Your task to perform on an android device: refresh tabs in the chrome app Image 0: 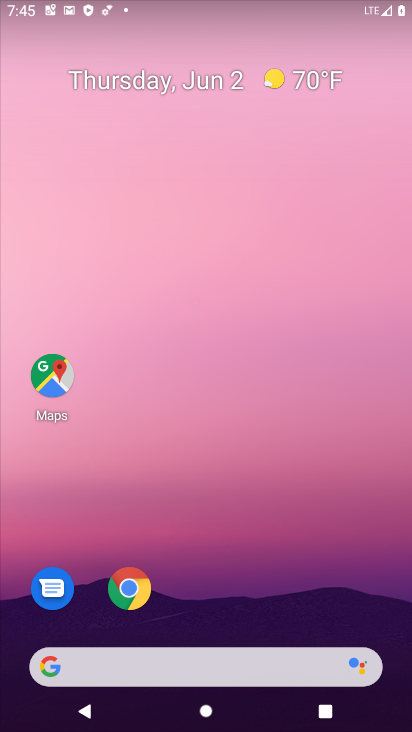
Step 0: click (140, 587)
Your task to perform on an android device: refresh tabs in the chrome app Image 1: 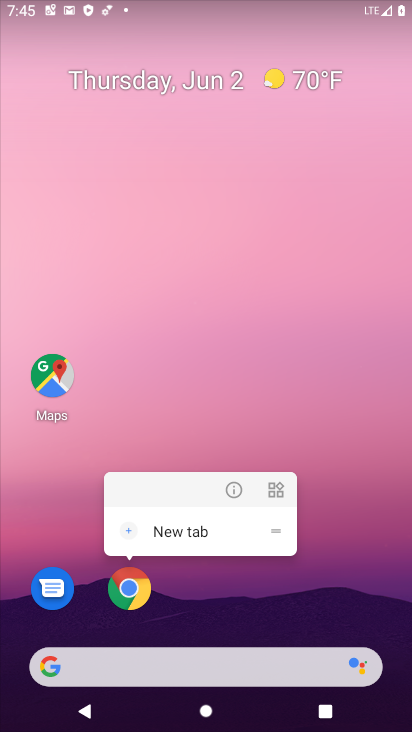
Step 1: click (140, 587)
Your task to perform on an android device: refresh tabs in the chrome app Image 2: 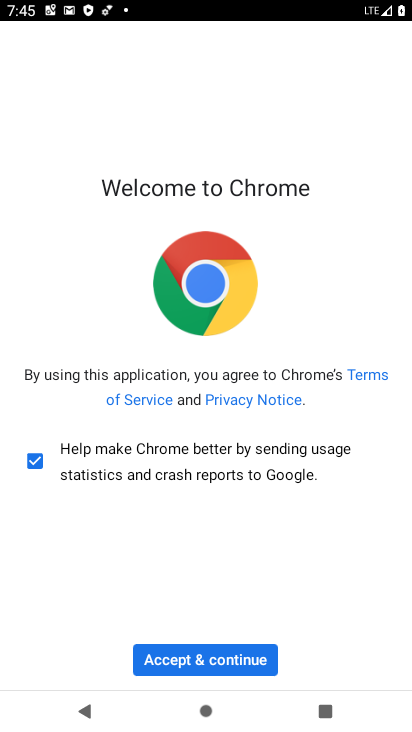
Step 2: click (186, 655)
Your task to perform on an android device: refresh tabs in the chrome app Image 3: 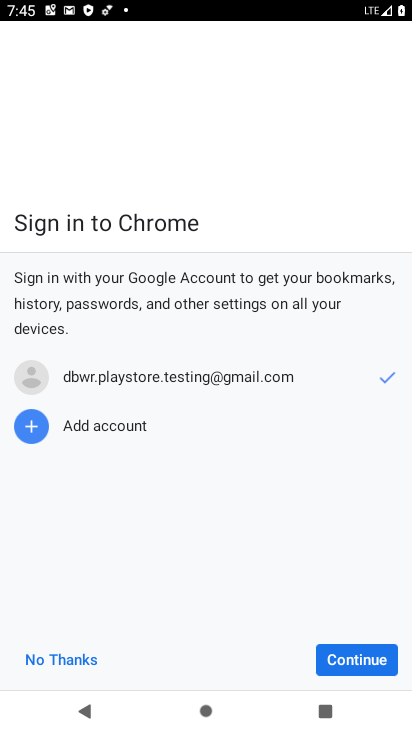
Step 3: click (350, 644)
Your task to perform on an android device: refresh tabs in the chrome app Image 4: 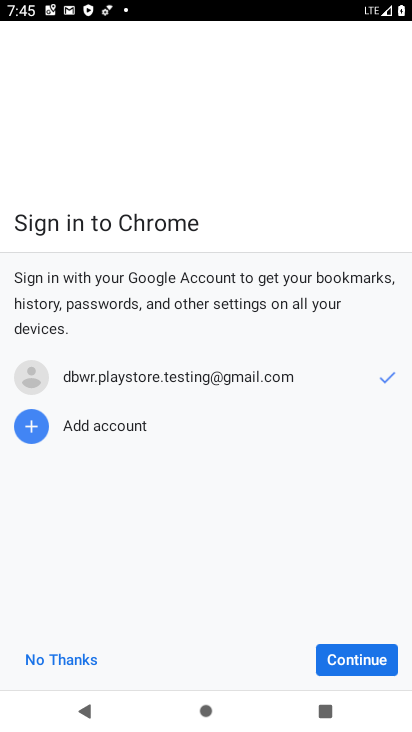
Step 4: click (339, 662)
Your task to perform on an android device: refresh tabs in the chrome app Image 5: 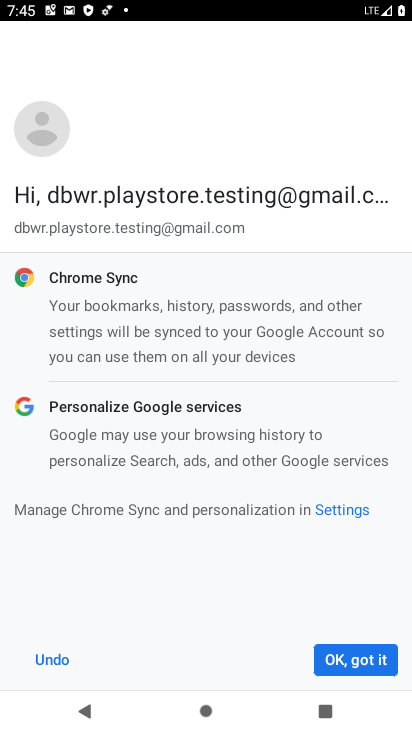
Step 5: click (339, 662)
Your task to perform on an android device: refresh tabs in the chrome app Image 6: 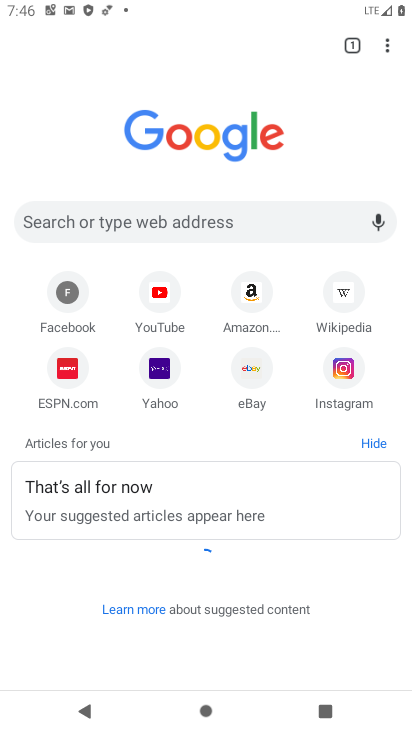
Step 6: click (385, 42)
Your task to perform on an android device: refresh tabs in the chrome app Image 7: 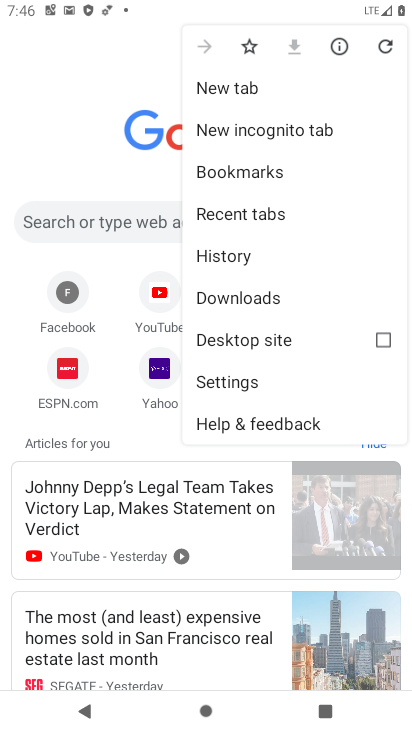
Step 7: click (383, 46)
Your task to perform on an android device: refresh tabs in the chrome app Image 8: 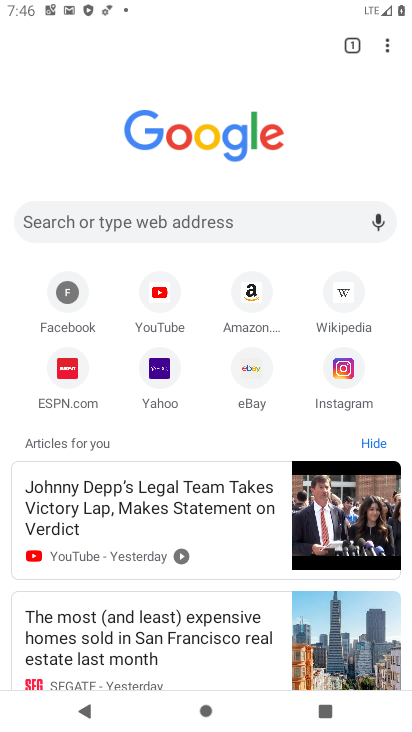
Step 8: task complete